Your task to perform on an android device: install app "DoorDash - Dasher" Image 0: 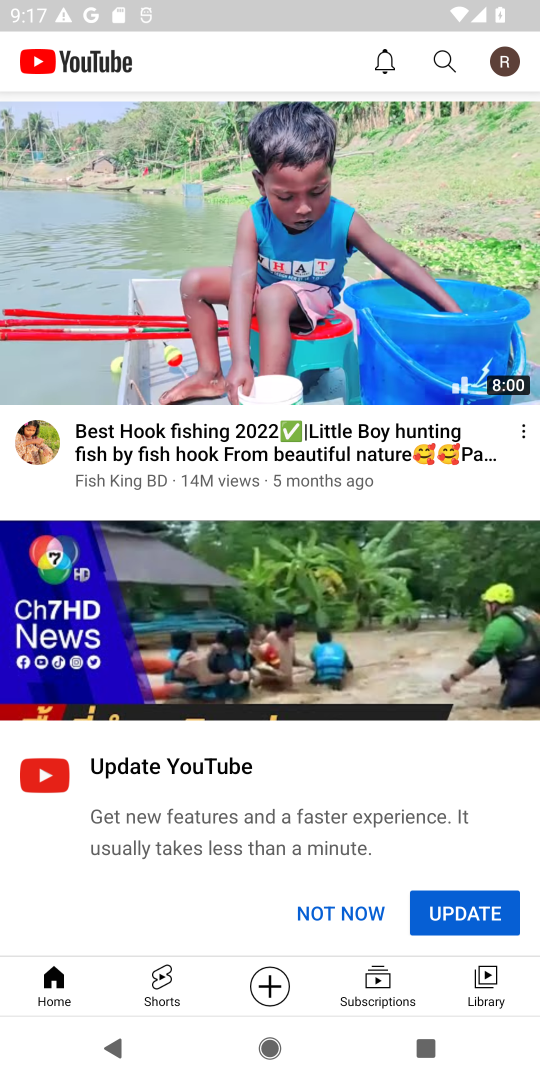
Step 0: press home button
Your task to perform on an android device: install app "DoorDash - Dasher" Image 1: 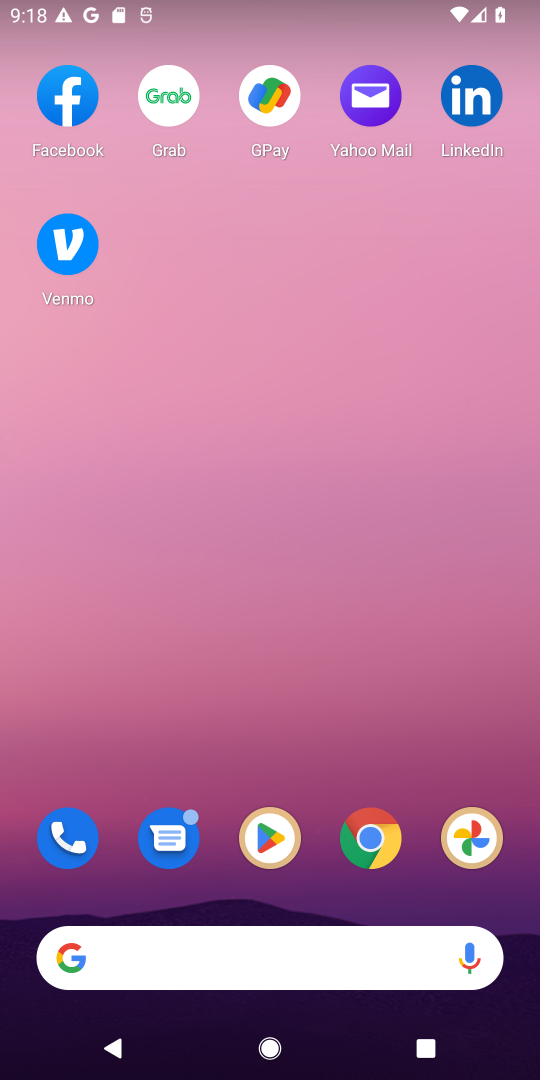
Step 1: click (285, 817)
Your task to perform on an android device: install app "DoorDash - Dasher" Image 2: 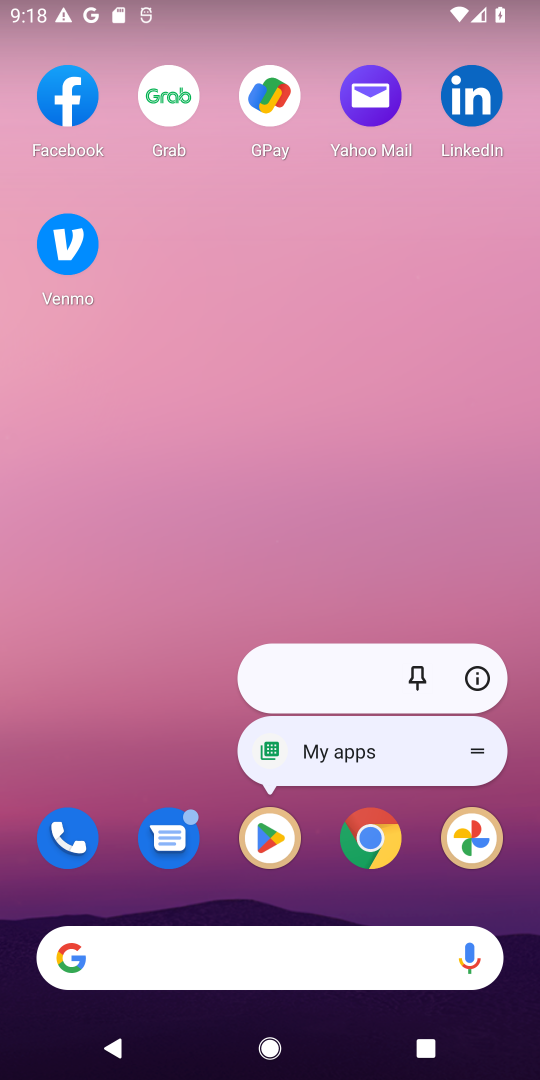
Step 2: click (278, 833)
Your task to perform on an android device: install app "DoorDash - Dasher" Image 3: 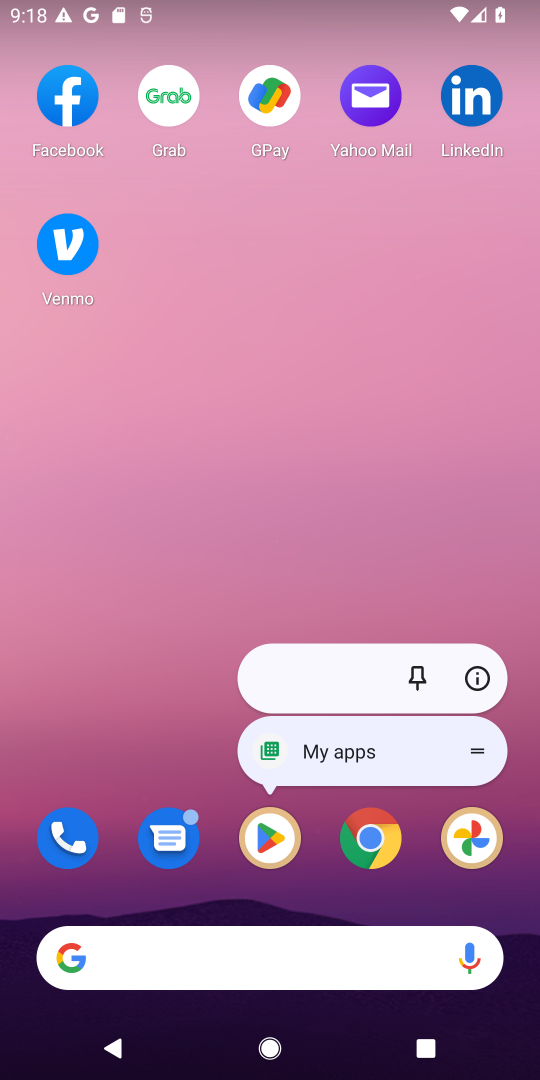
Step 3: click (278, 815)
Your task to perform on an android device: install app "DoorDash - Dasher" Image 4: 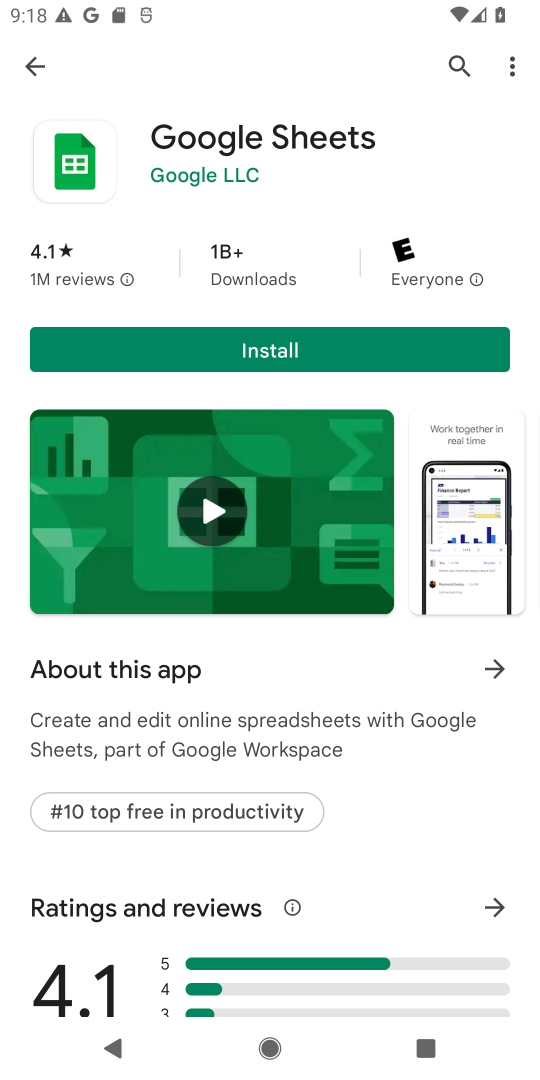
Step 4: click (443, 62)
Your task to perform on an android device: install app "DoorDash - Dasher" Image 5: 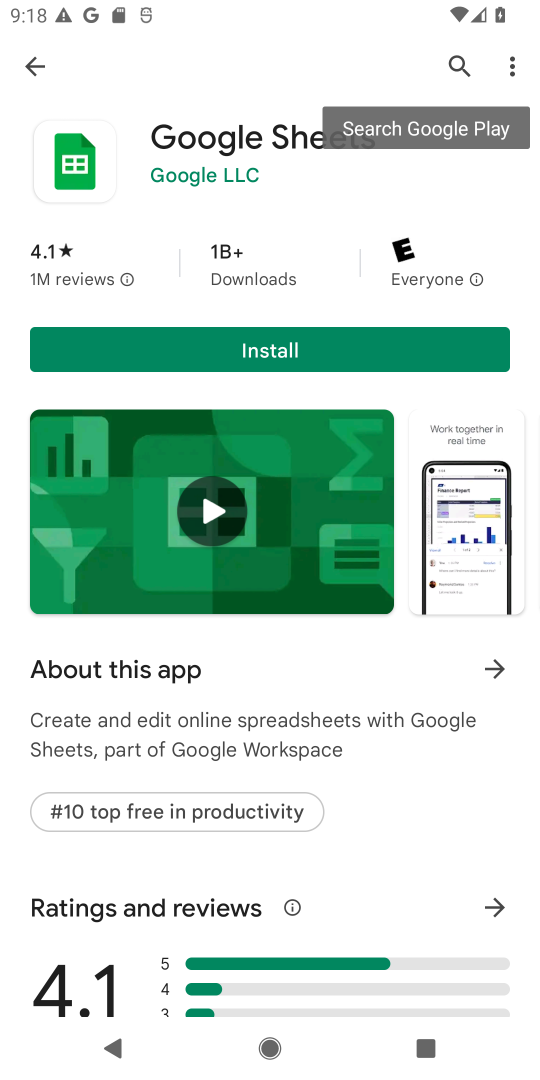
Step 5: click (452, 62)
Your task to perform on an android device: install app "DoorDash - Dasher" Image 6: 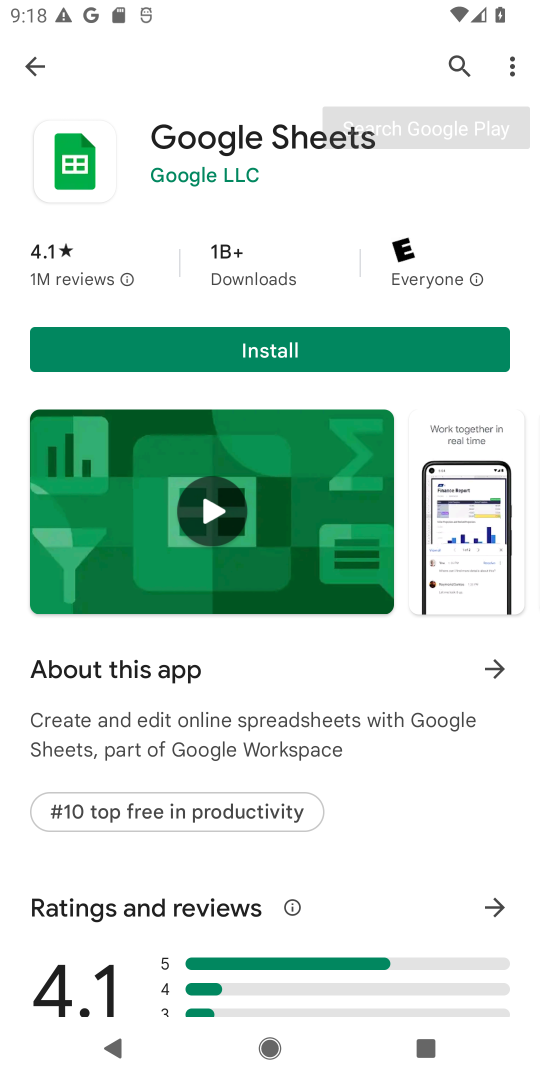
Step 6: click (464, 67)
Your task to perform on an android device: install app "DoorDash - Dasher" Image 7: 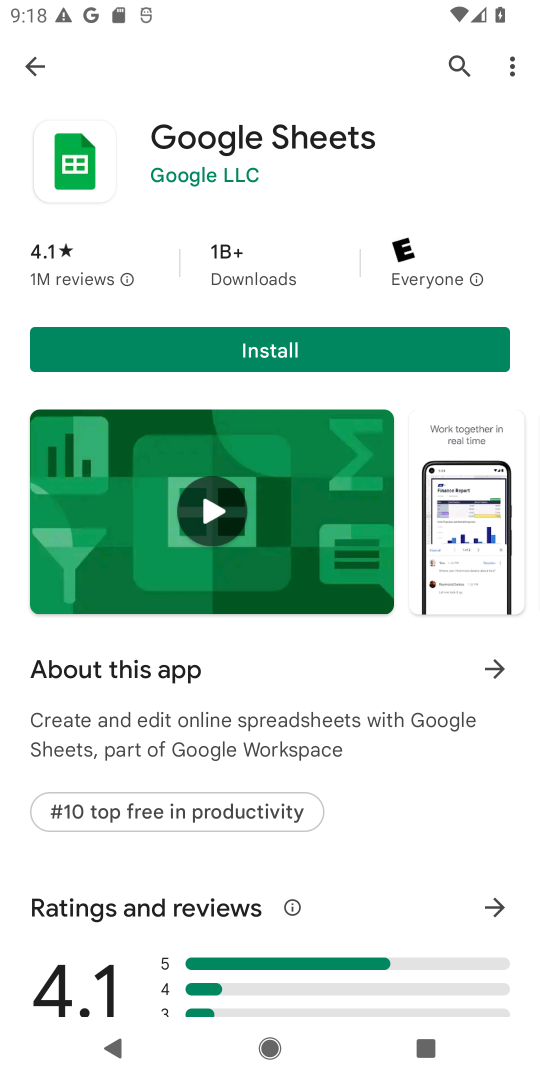
Step 7: click (451, 49)
Your task to perform on an android device: install app "DoorDash - Dasher" Image 8: 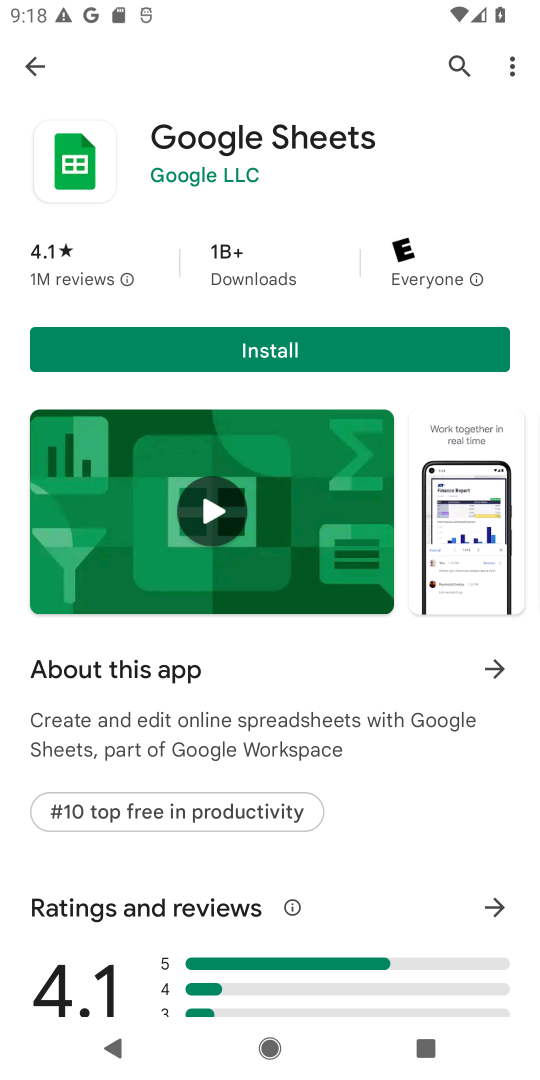
Step 8: click (449, 63)
Your task to perform on an android device: install app "DoorDash - Dasher" Image 9: 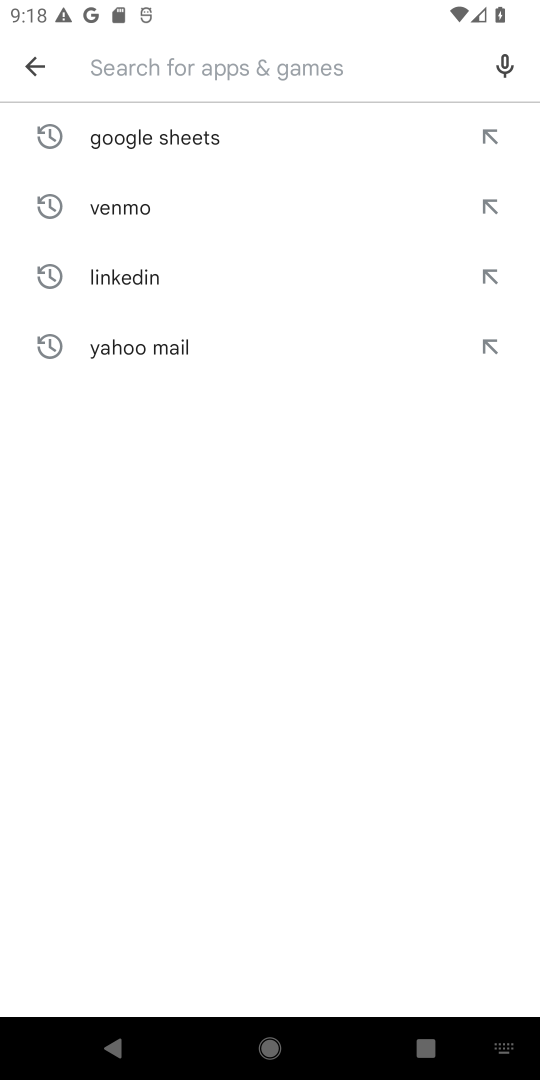
Step 9: type "DoorDash - Dasher"
Your task to perform on an android device: install app "DoorDash - Dasher" Image 10: 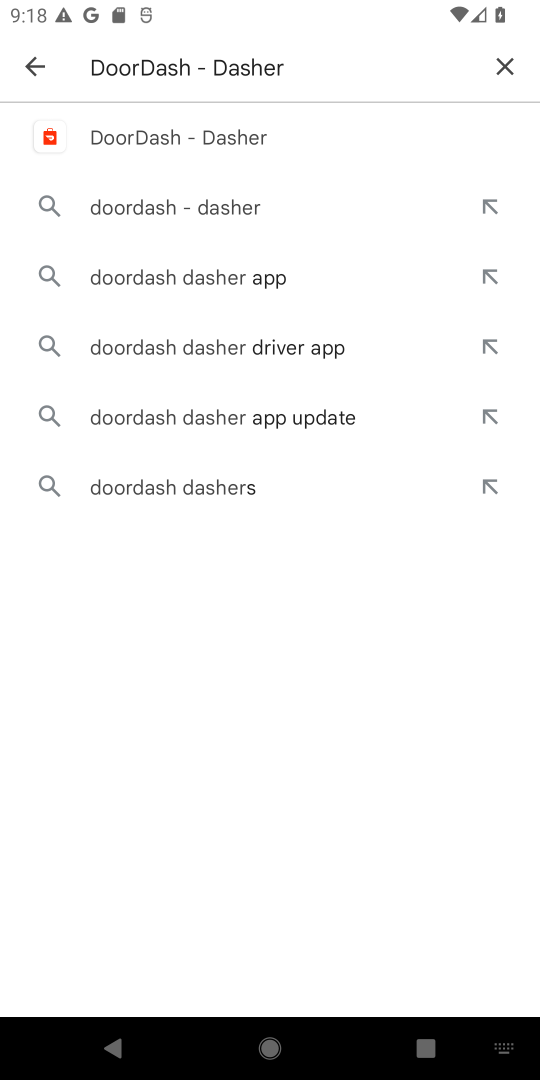
Step 10: click (91, 131)
Your task to perform on an android device: install app "DoorDash - Dasher" Image 11: 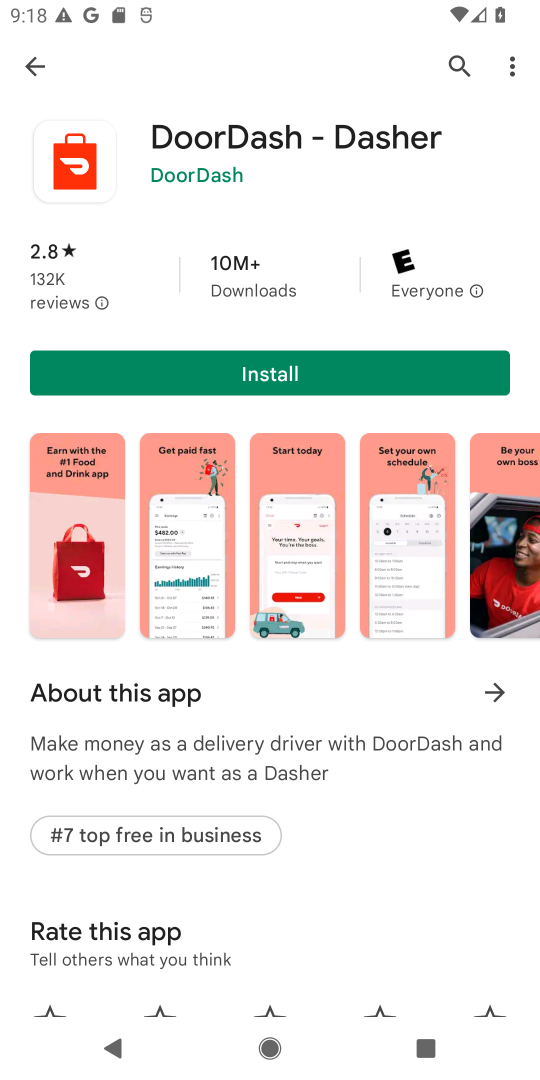
Step 11: click (259, 360)
Your task to perform on an android device: install app "DoorDash - Dasher" Image 12: 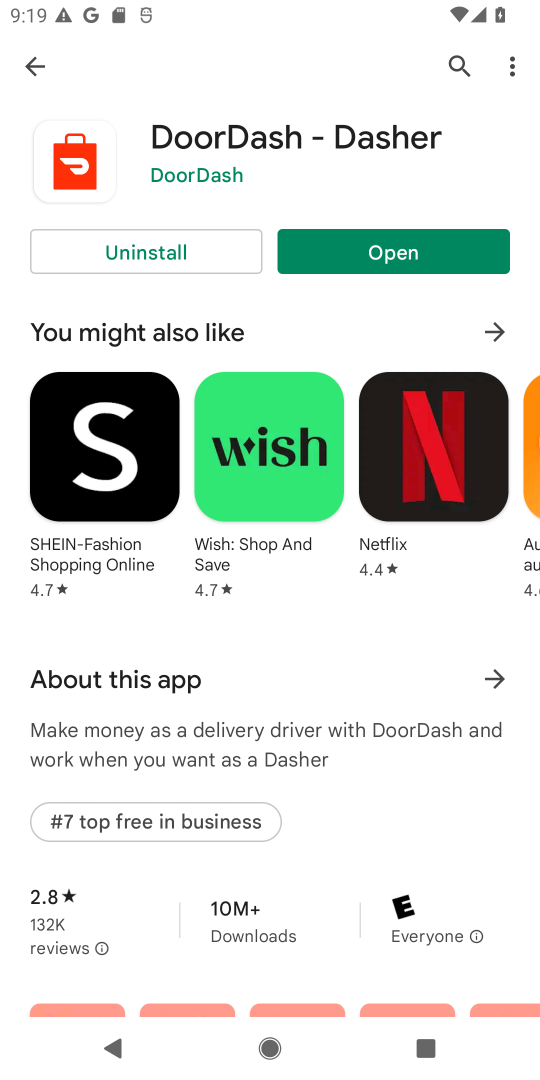
Step 12: task complete